Your task to perform on an android device: Show me the alarms in the clock app Image 0: 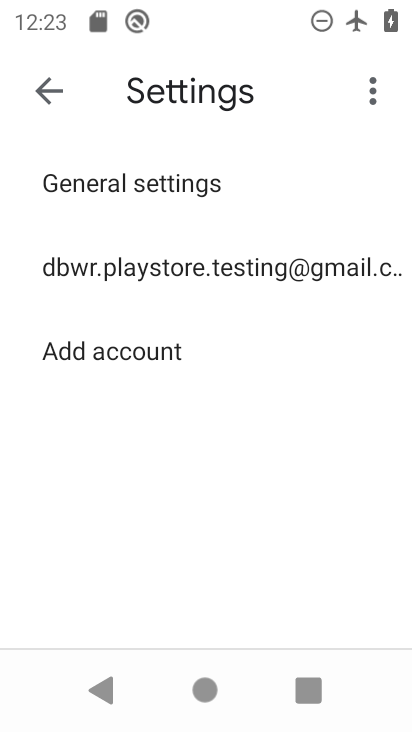
Step 0: click (44, 92)
Your task to perform on an android device: Show me the alarms in the clock app Image 1: 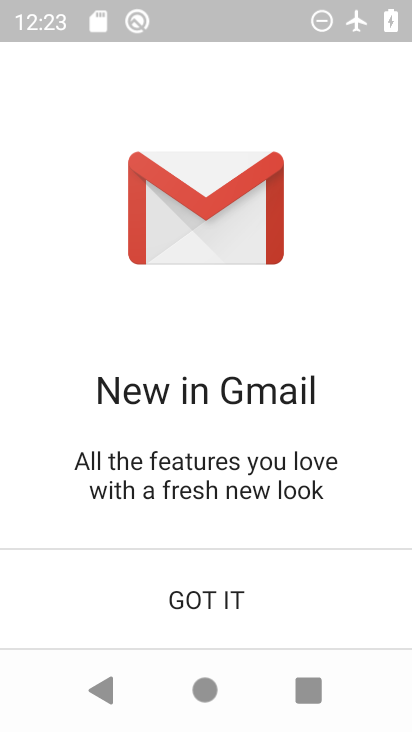
Step 1: press home button
Your task to perform on an android device: Show me the alarms in the clock app Image 2: 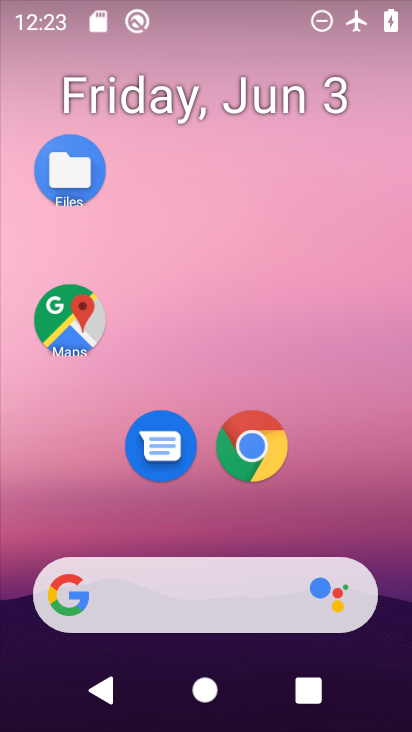
Step 2: drag from (276, 681) to (224, 190)
Your task to perform on an android device: Show me the alarms in the clock app Image 3: 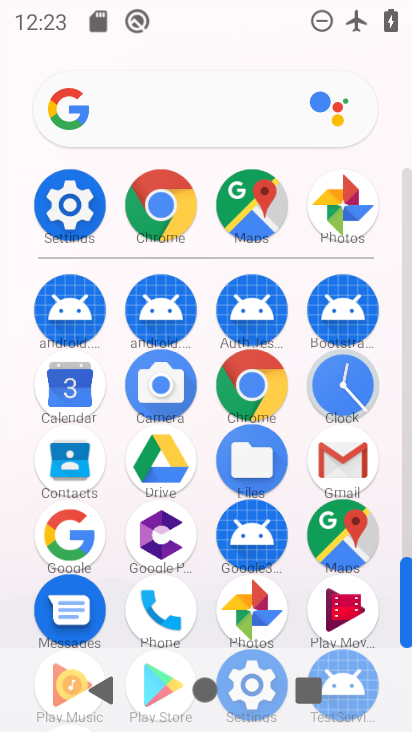
Step 3: click (342, 400)
Your task to perform on an android device: Show me the alarms in the clock app Image 4: 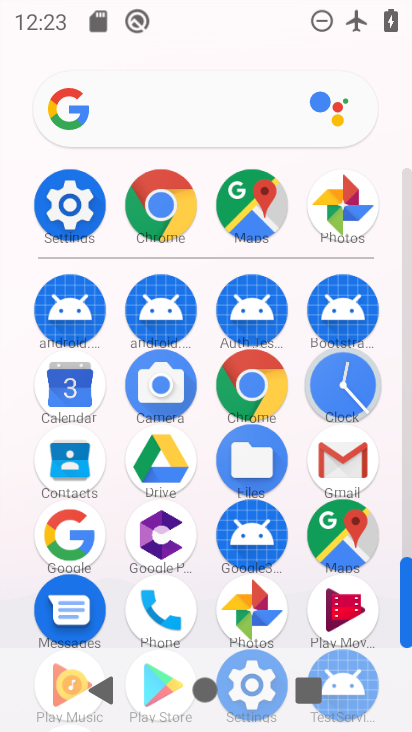
Step 4: click (342, 400)
Your task to perform on an android device: Show me the alarms in the clock app Image 5: 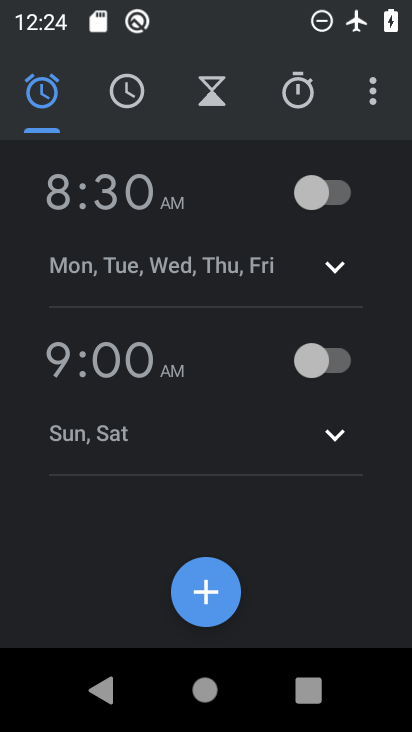
Step 5: click (306, 198)
Your task to perform on an android device: Show me the alarms in the clock app Image 6: 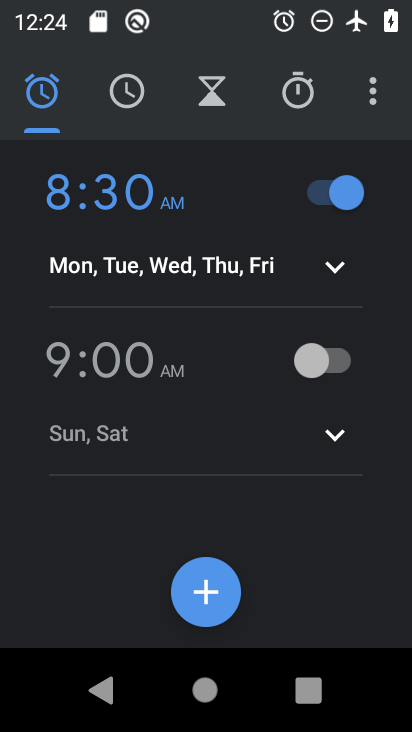
Step 6: click (337, 192)
Your task to perform on an android device: Show me the alarms in the clock app Image 7: 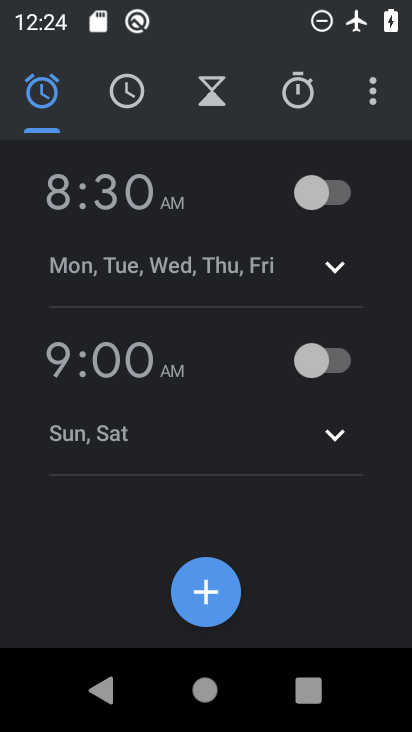
Step 7: task complete